Your task to perform on an android device: find which apps use the phone's location Image 0: 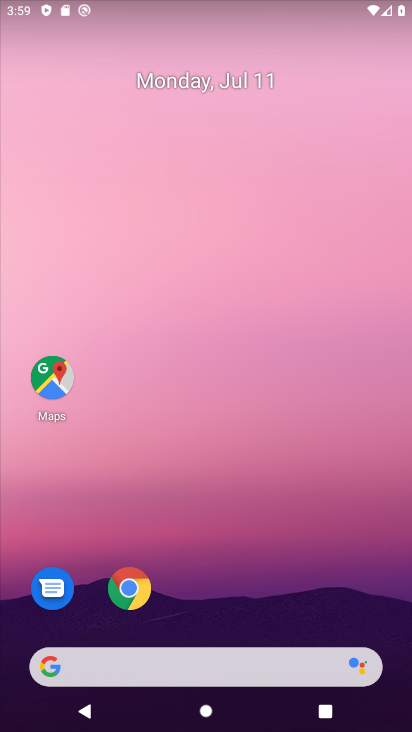
Step 0: drag from (141, 712) to (47, 7)
Your task to perform on an android device: find which apps use the phone's location Image 1: 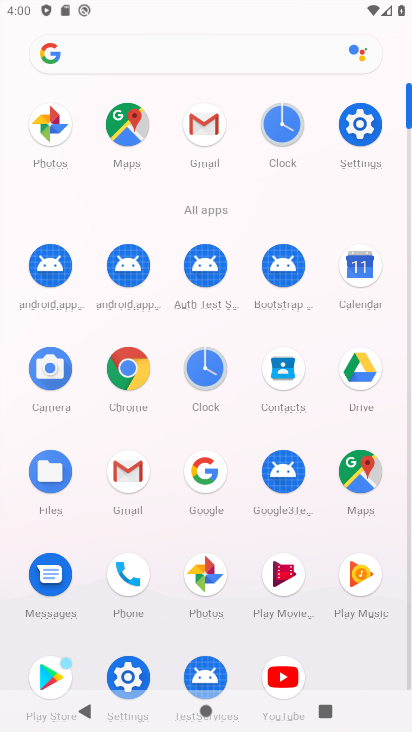
Step 1: click (372, 131)
Your task to perform on an android device: find which apps use the phone's location Image 2: 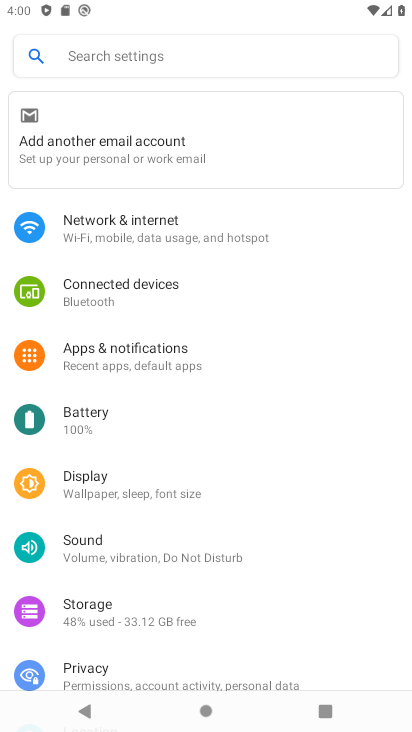
Step 2: drag from (245, 589) to (273, 0)
Your task to perform on an android device: find which apps use the phone's location Image 3: 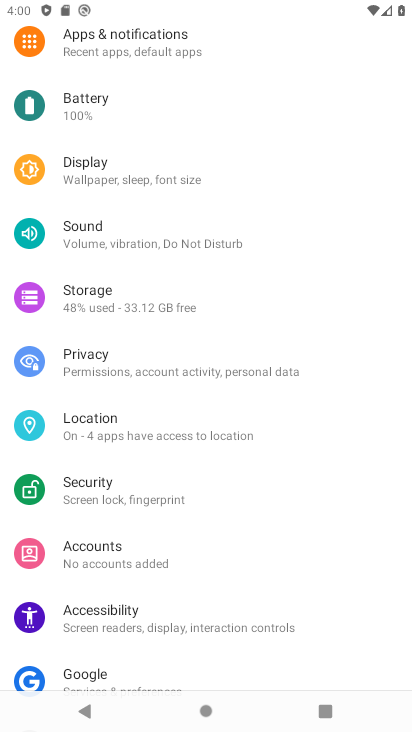
Step 3: click (172, 417)
Your task to perform on an android device: find which apps use the phone's location Image 4: 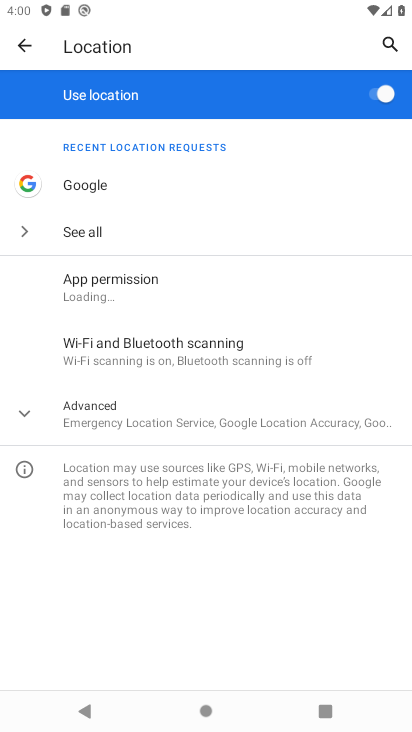
Step 4: click (178, 281)
Your task to perform on an android device: find which apps use the phone's location Image 5: 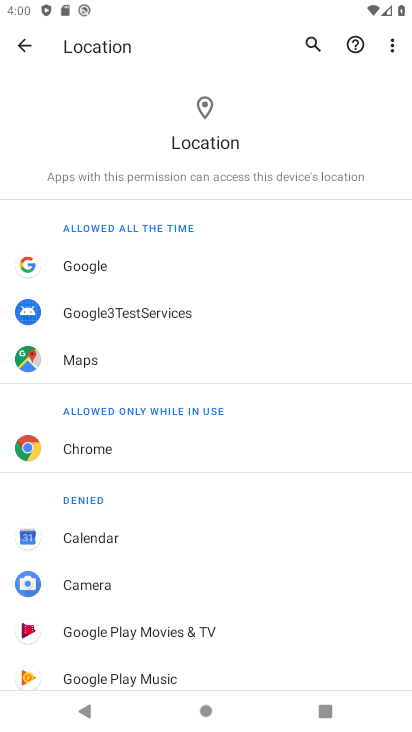
Step 5: task complete